Your task to perform on an android device: Toggle the flashlight Image 0: 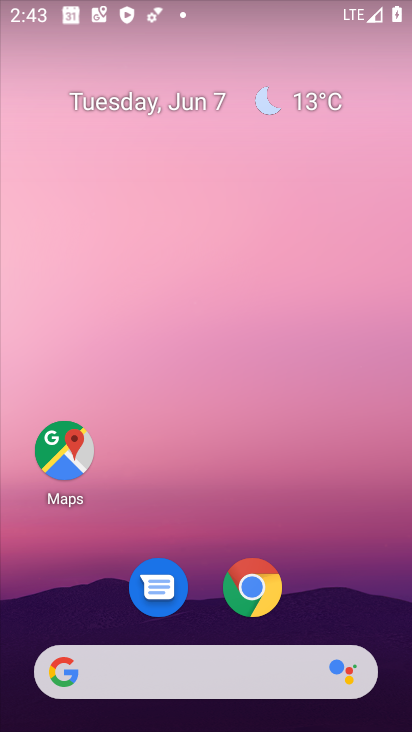
Step 0: drag from (258, 649) to (402, 50)
Your task to perform on an android device: Toggle the flashlight Image 1: 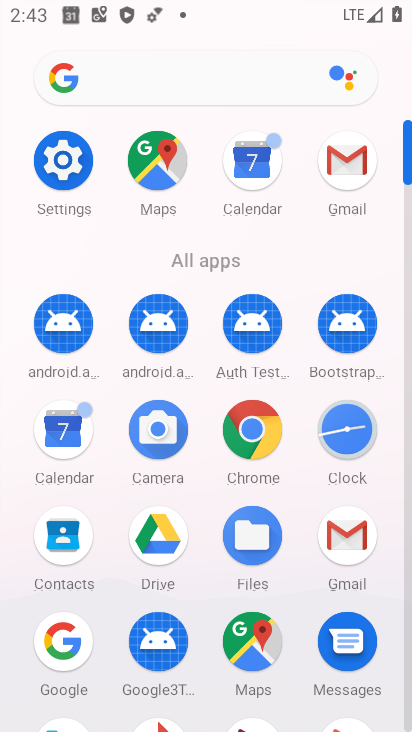
Step 1: click (68, 152)
Your task to perform on an android device: Toggle the flashlight Image 2: 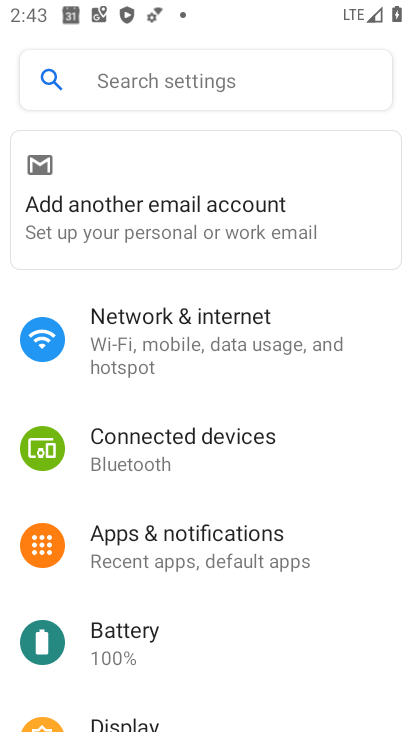
Step 2: task complete